Your task to perform on an android device: What's the weather going to be tomorrow? Image 0: 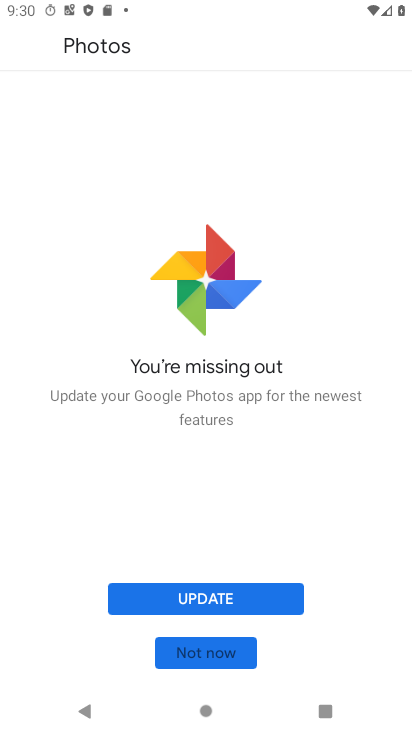
Step 0: press home button
Your task to perform on an android device: What's the weather going to be tomorrow? Image 1: 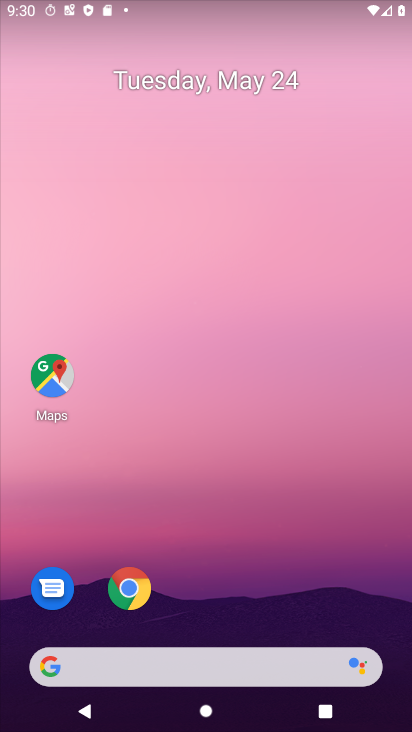
Step 1: click (157, 669)
Your task to perform on an android device: What's the weather going to be tomorrow? Image 2: 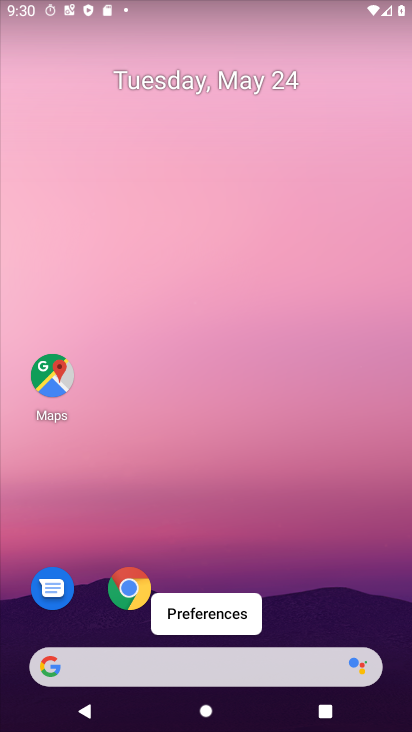
Step 2: click (105, 671)
Your task to perform on an android device: What's the weather going to be tomorrow? Image 3: 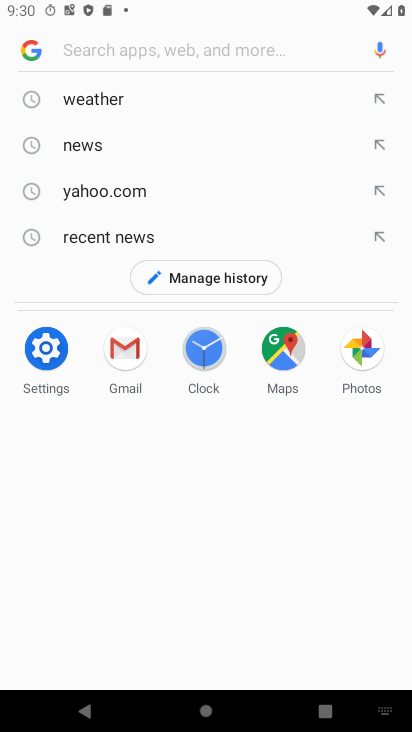
Step 3: click (92, 63)
Your task to perform on an android device: What's the weather going to be tomorrow? Image 4: 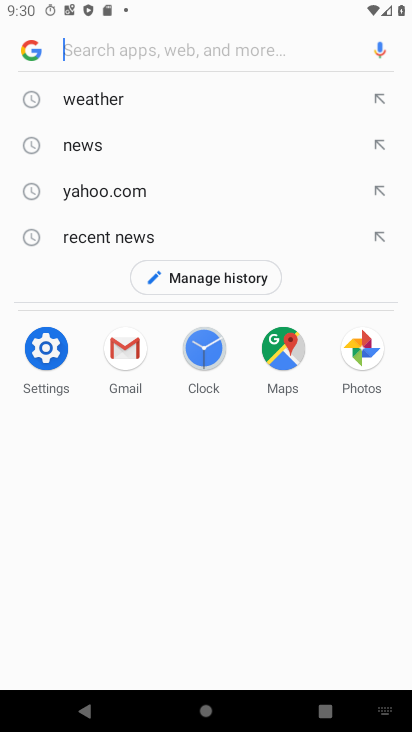
Step 4: click (89, 93)
Your task to perform on an android device: What's the weather going to be tomorrow? Image 5: 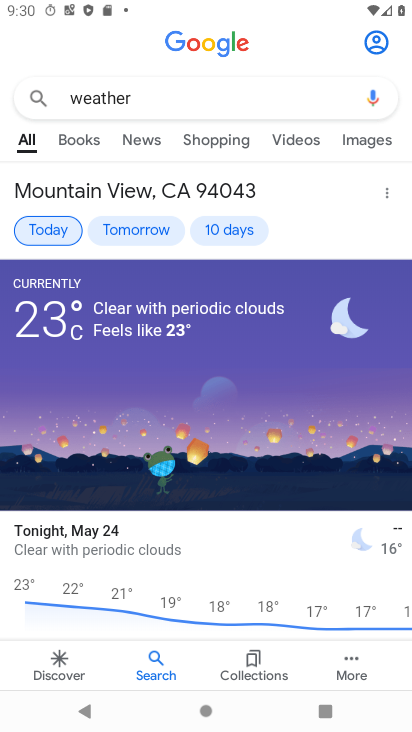
Step 5: click (150, 228)
Your task to perform on an android device: What's the weather going to be tomorrow? Image 6: 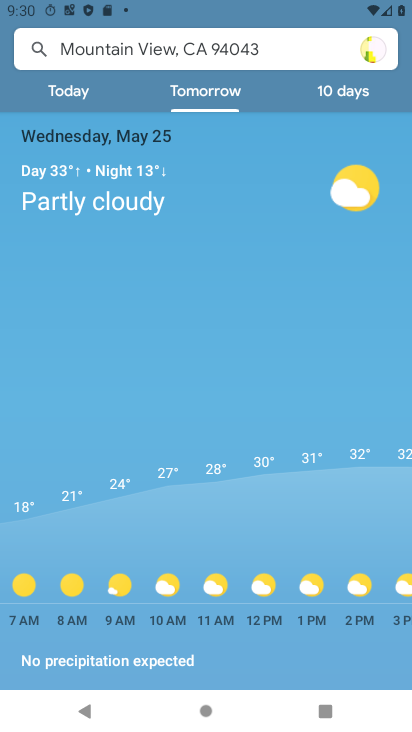
Step 6: task complete